Your task to perform on an android device: search for starred emails in the gmail app Image 0: 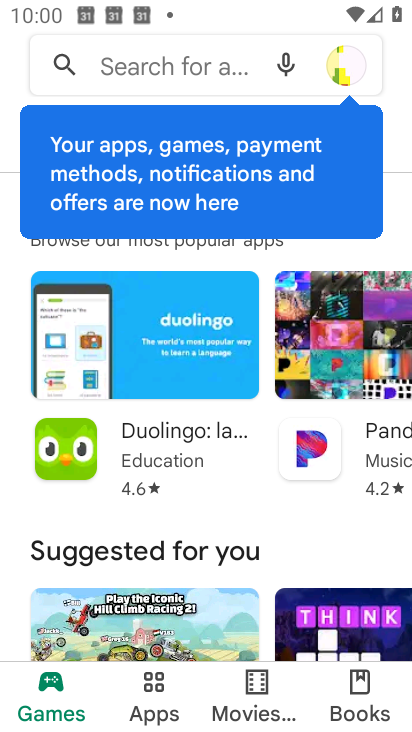
Step 0: press home button
Your task to perform on an android device: search for starred emails in the gmail app Image 1: 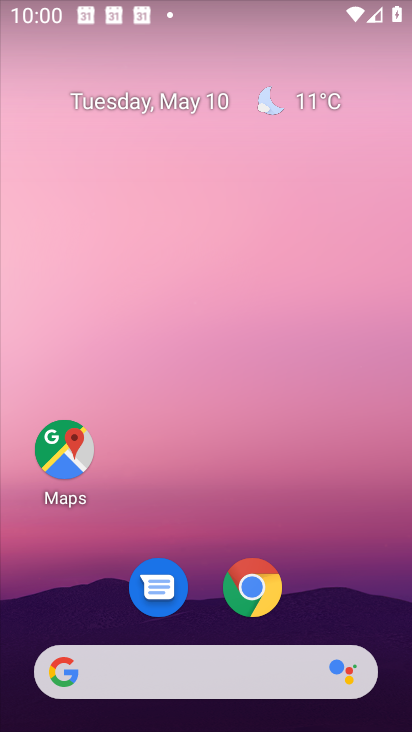
Step 1: drag from (335, 595) to (280, 85)
Your task to perform on an android device: search for starred emails in the gmail app Image 2: 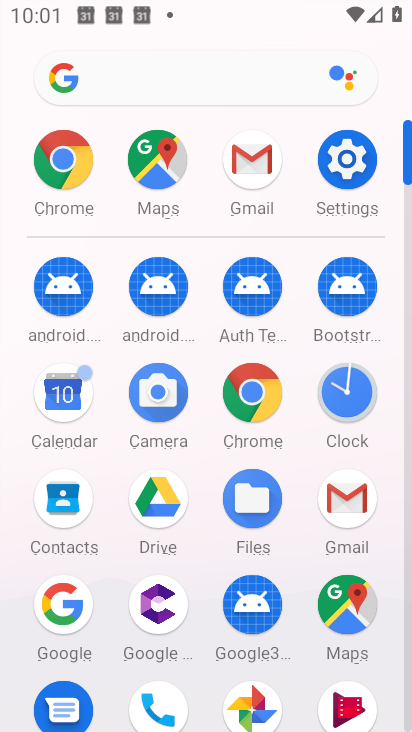
Step 2: click (327, 487)
Your task to perform on an android device: search for starred emails in the gmail app Image 3: 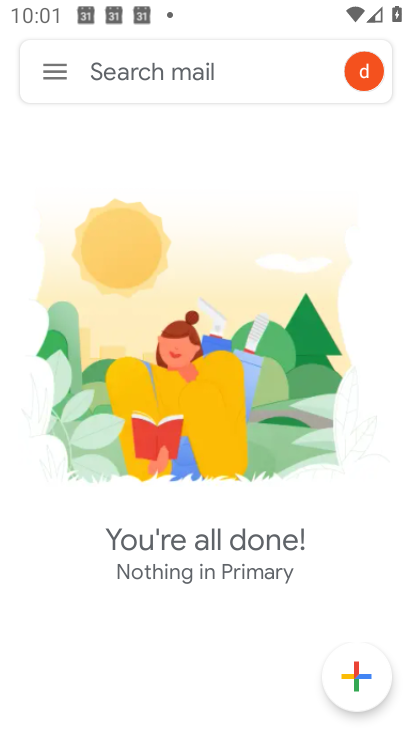
Step 3: click (47, 76)
Your task to perform on an android device: search for starred emails in the gmail app Image 4: 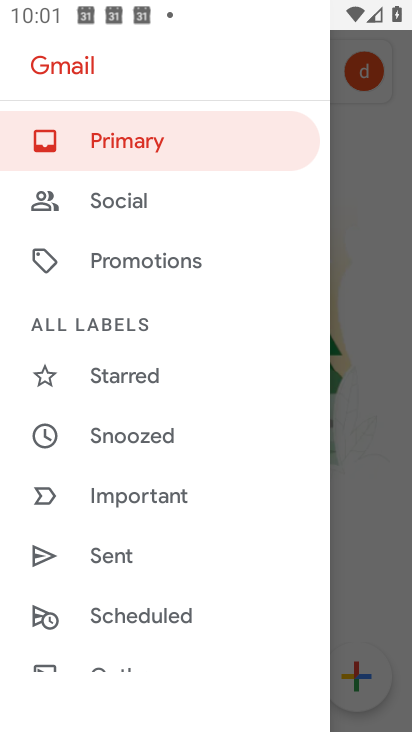
Step 4: click (158, 358)
Your task to perform on an android device: search for starred emails in the gmail app Image 5: 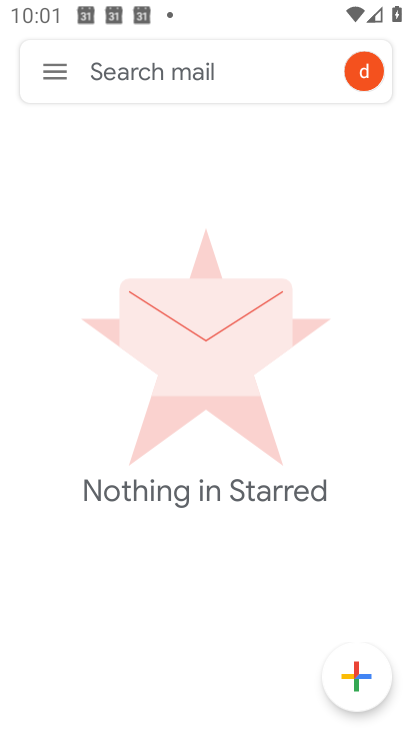
Step 5: task complete